Your task to perform on an android device: install app "Booking.com: Hotels and more" Image 0: 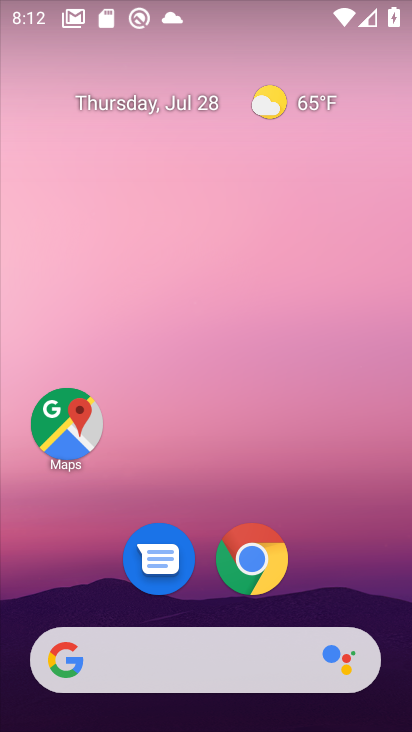
Step 0: drag from (196, 506) to (203, 73)
Your task to perform on an android device: install app "Booking.com: Hotels and more" Image 1: 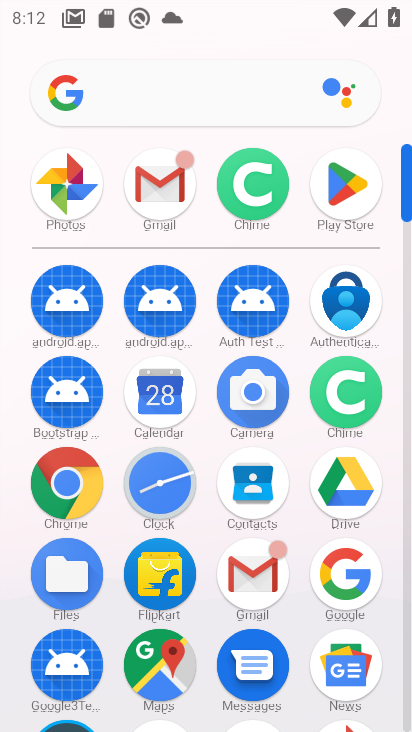
Step 1: click (359, 189)
Your task to perform on an android device: install app "Booking.com: Hotels and more" Image 2: 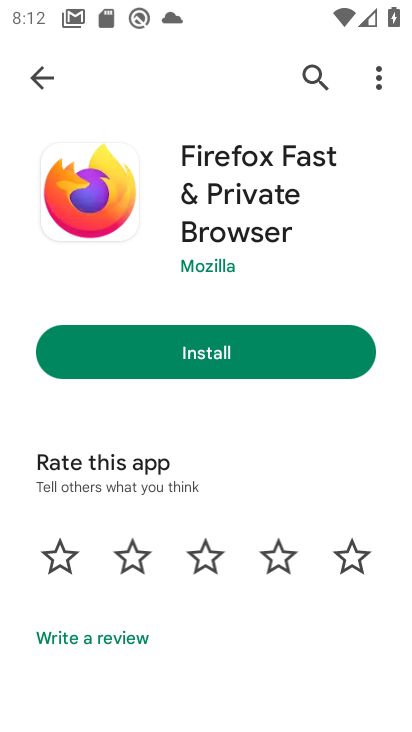
Step 2: click (47, 87)
Your task to perform on an android device: install app "Booking.com: Hotels and more" Image 3: 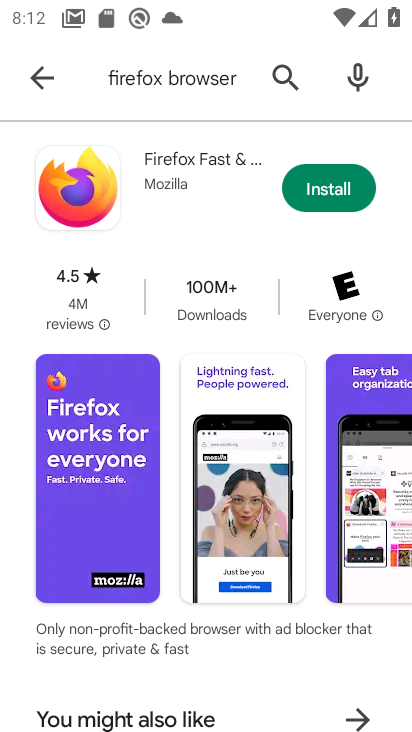
Step 3: click (174, 87)
Your task to perform on an android device: install app "Booking.com: Hotels and more" Image 4: 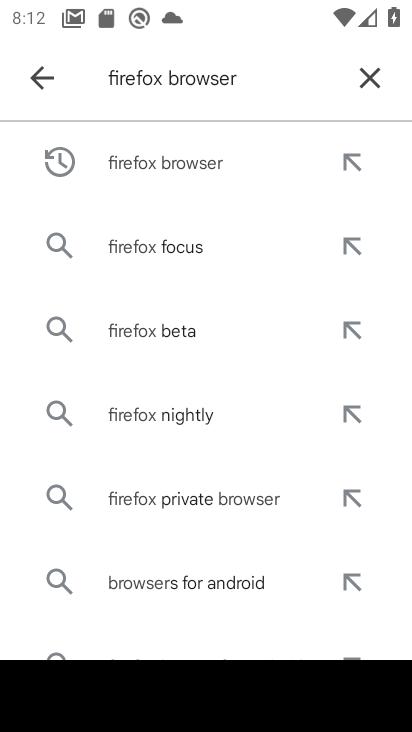
Step 4: click (365, 84)
Your task to perform on an android device: install app "Booking.com: Hotels and more" Image 5: 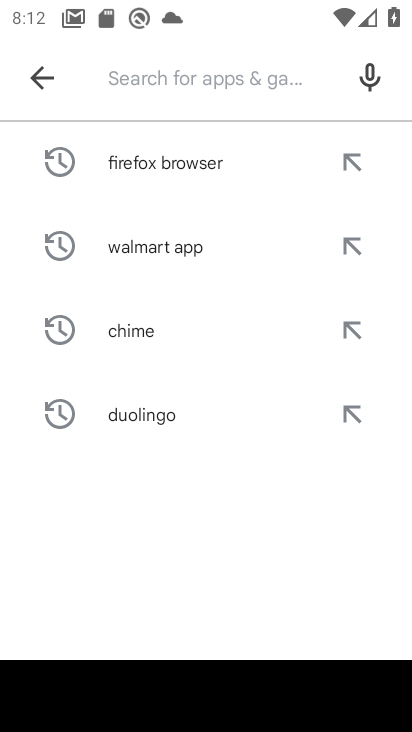
Step 5: type "Booking"
Your task to perform on an android device: install app "Booking.com: Hotels and more" Image 6: 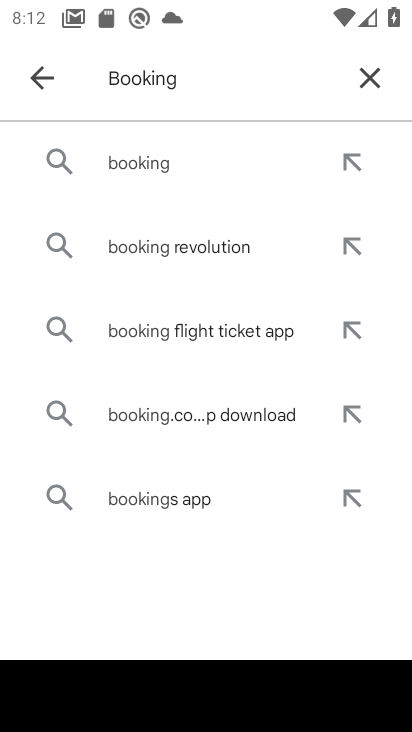
Step 6: type ".com"
Your task to perform on an android device: install app "Booking.com: Hotels and more" Image 7: 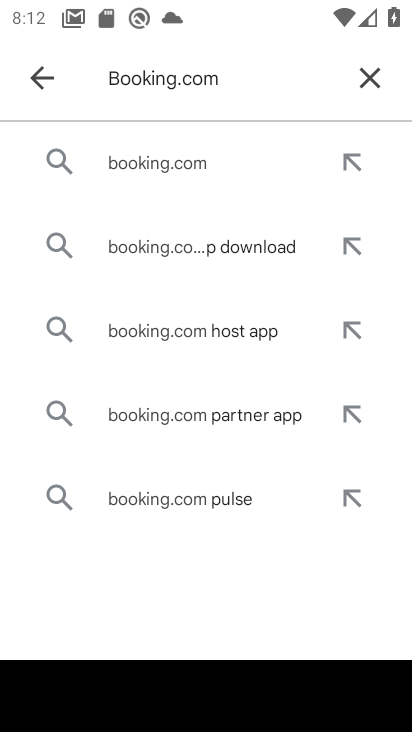
Step 7: click (152, 149)
Your task to perform on an android device: install app "Booking.com: Hotels and more" Image 8: 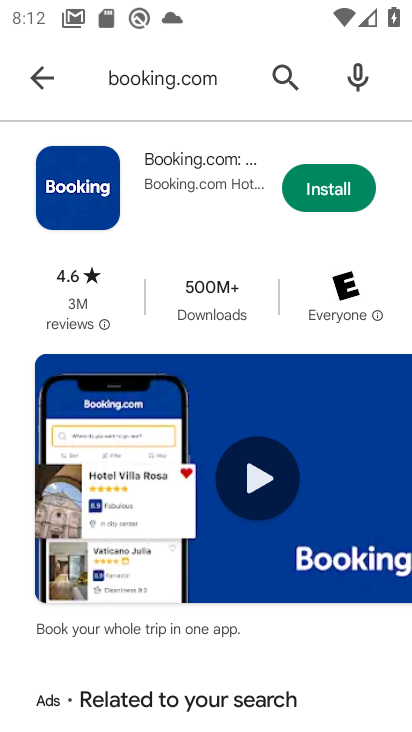
Step 8: click (324, 187)
Your task to perform on an android device: install app "Booking.com: Hotels and more" Image 9: 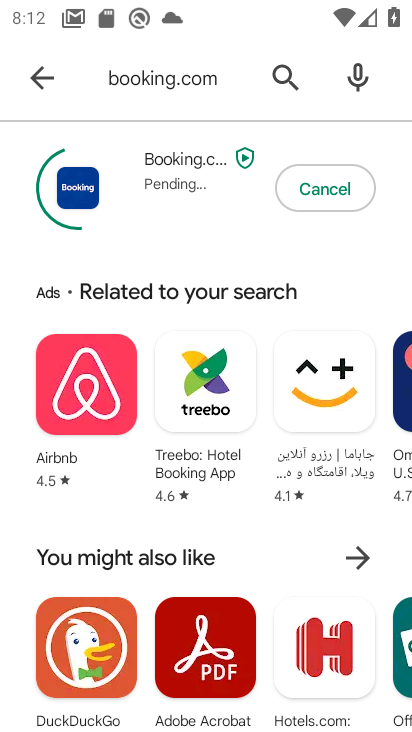
Step 9: click (173, 192)
Your task to perform on an android device: install app "Booking.com: Hotels and more" Image 10: 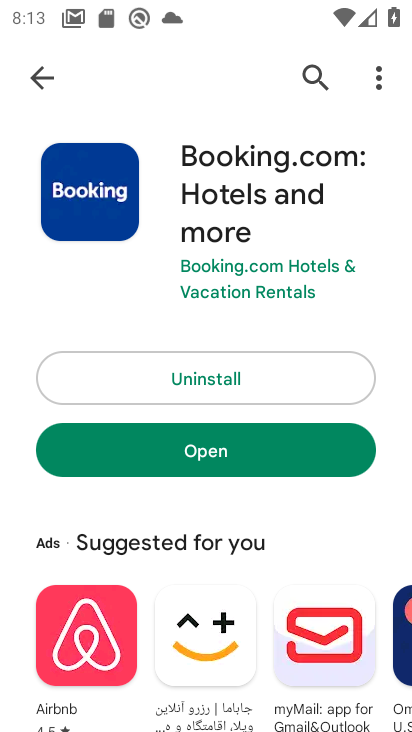
Step 10: task complete